Your task to perform on an android device: see sites visited before in the chrome app Image 0: 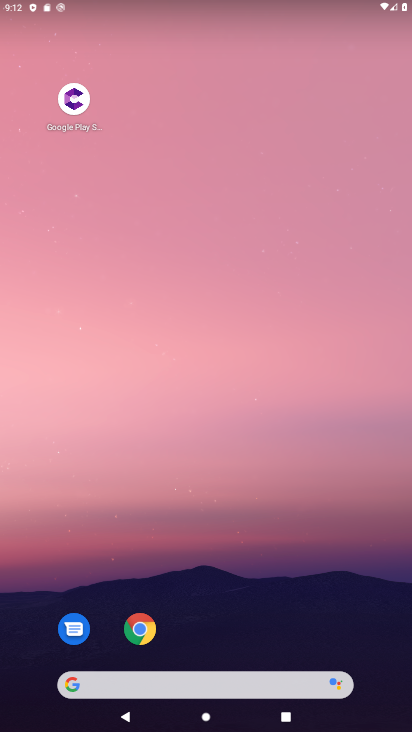
Step 0: click (139, 626)
Your task to perform on an android device: see sites visited before in the chrome app Image 1: 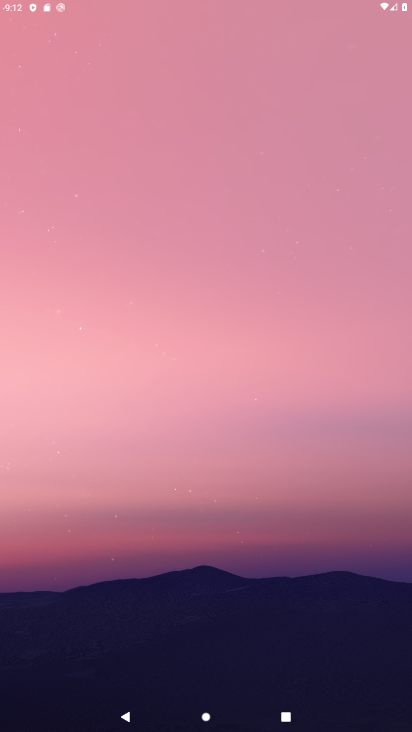
Step 1: click (139, 626)
Your task to perform on an android device: see sites visited before in the chrome app Image 2: 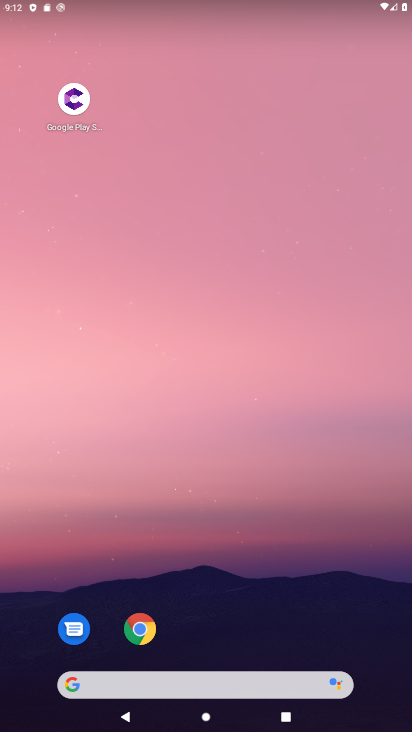
Step 2: click (143, 612)
Your task to perform on an android device: see sites visited before in the chrome app Image 3: 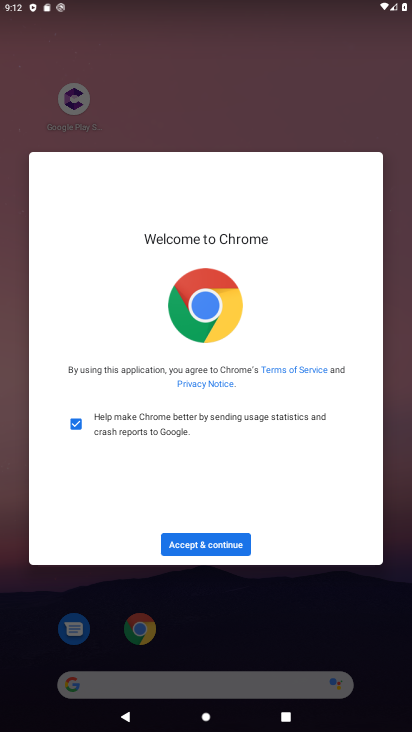
Step 3: click (198, 565)
Your task to perform on an android device: see sites visited before in the chrome app Image 4: 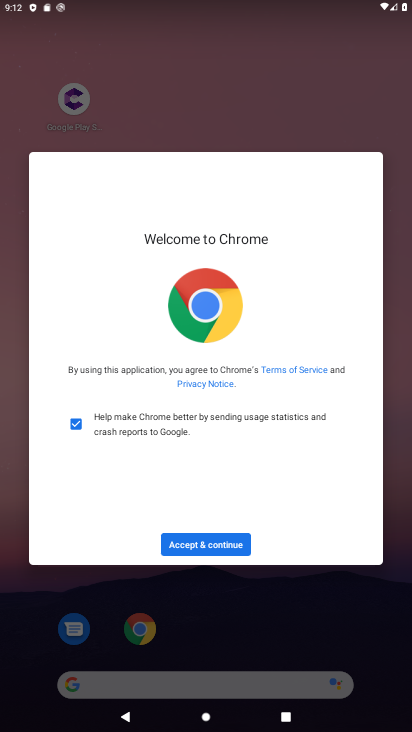
Step 4: click (198, 551)
Your task to perform on an android device: see sites visited before in the chrome app Image 5: 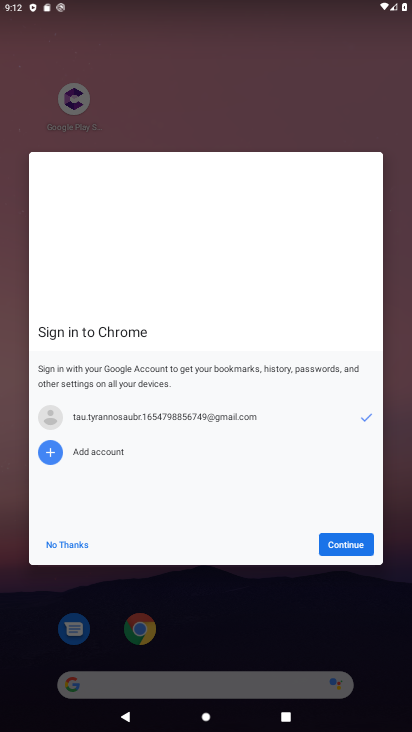
Step 5: click (344, 554)
Your task to perform on an android device: see sites visited before in the chrome app Image 6: 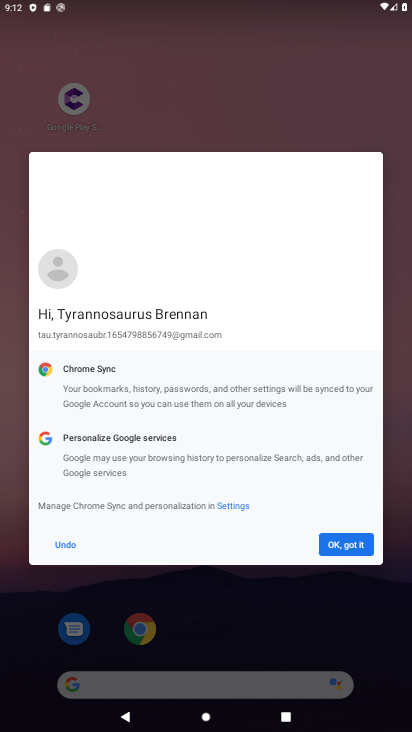
Step 6: click (344, 554)
Your task to perform on an android device: see sites visited before in the chrome app Image 7: 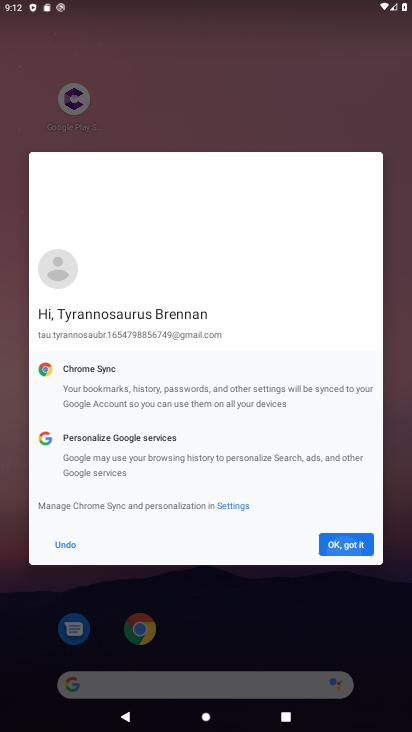
Step 7: click (344, 554)
Your task to perform on an android device: see sites visited before in the chrome app Image 8: 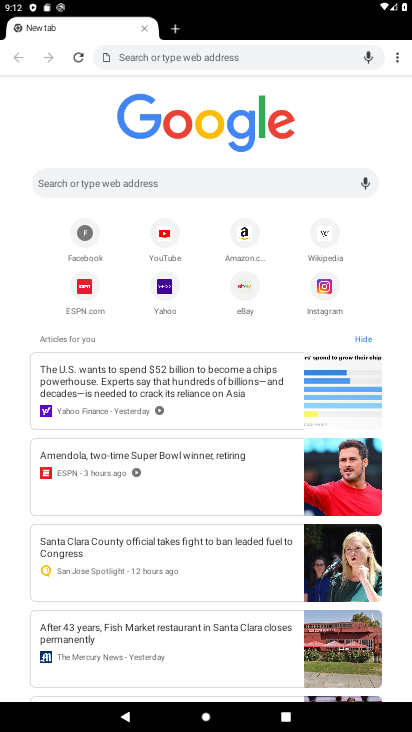
Step 8: click (392, 59)
Your task to perform on an android device: see sites visited before in the chrome app Image 9: 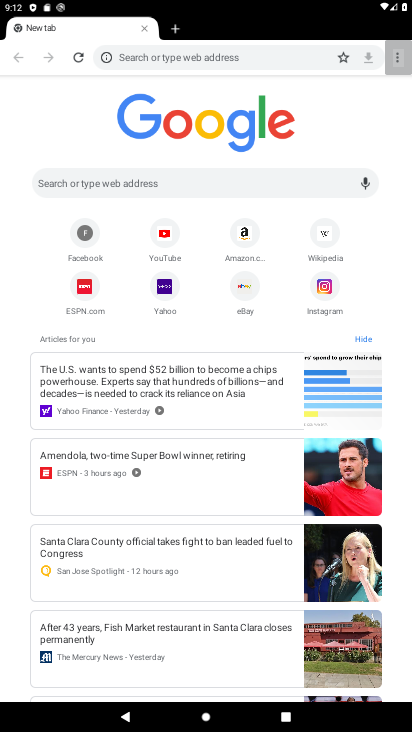
Step 9: click (392, 59)
Your task to perform on an android device: see sites visited before in the chrome app Image 10: 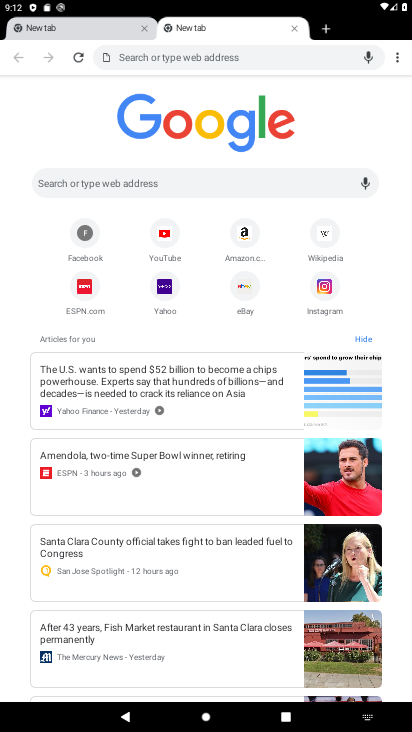
Step 10: click (397, 55)
Your task to perform on an android device: see sites visited before in the chrome app Image 11: 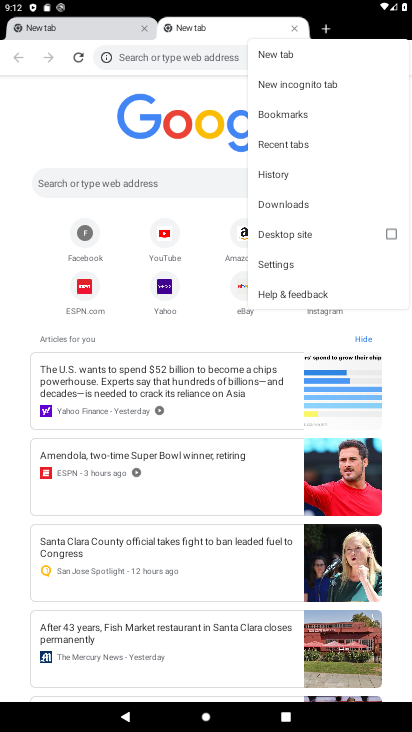
Step 11: click (289, 168)
Your task to perform on an android device: see sites visited before in the chrome app Image 12: 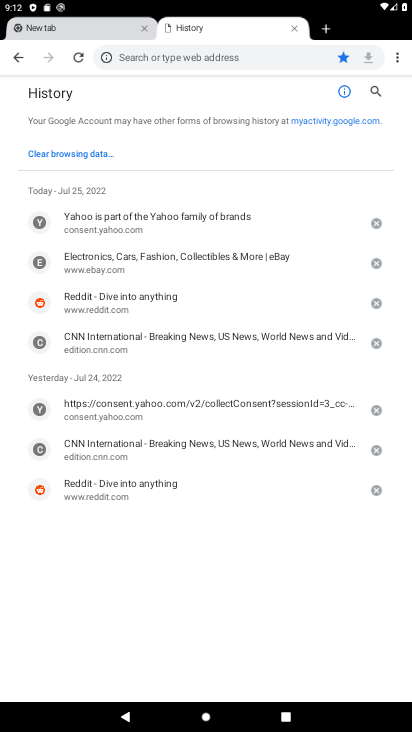
Step 12: task complete